Your task to perform on an android device: When is my next appointment? Image 0: 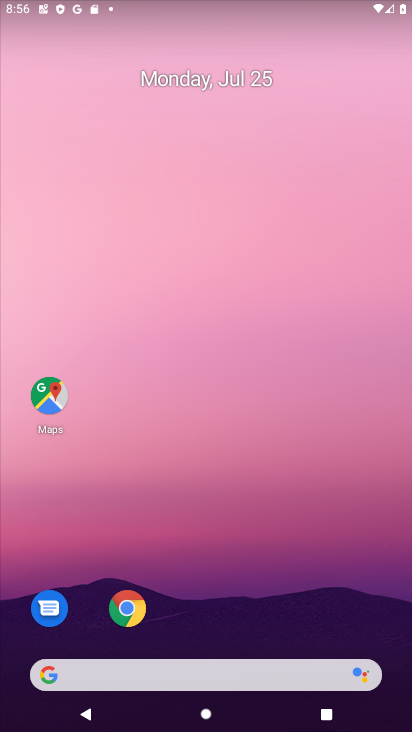
Step 0: drag from (236, 630) to (236, 247)
Your task to perform on an android device: When is my next appointment? Image 1: 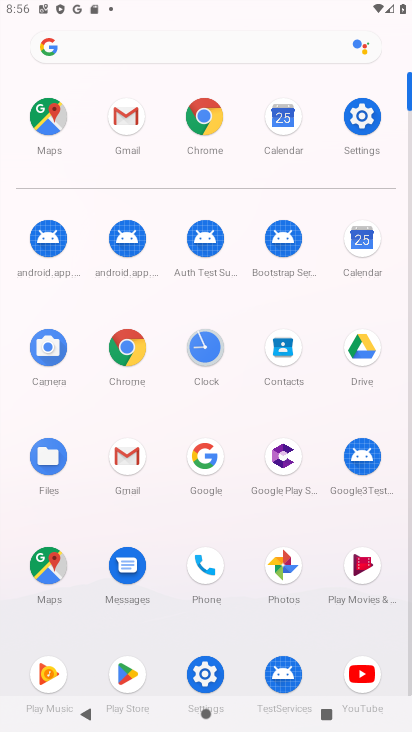
Step 1: click (278, 114)
Your task to perform on an android device: When is my next appointment? Image 2: 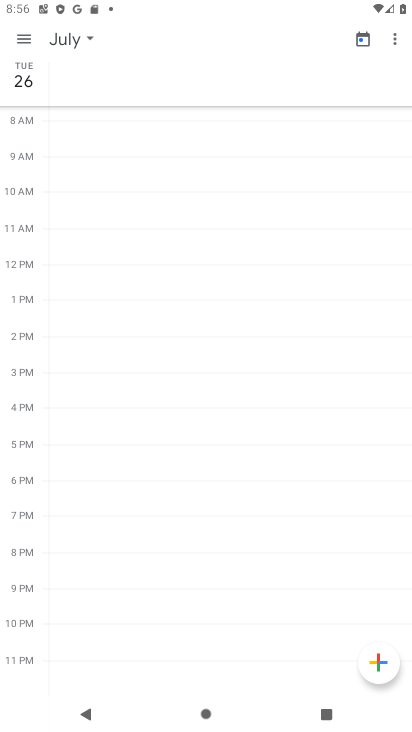
Step 2: drag from (142, 456) to (209, 13)
Your task to perform on an android device: When is my next appointment? Image 3: 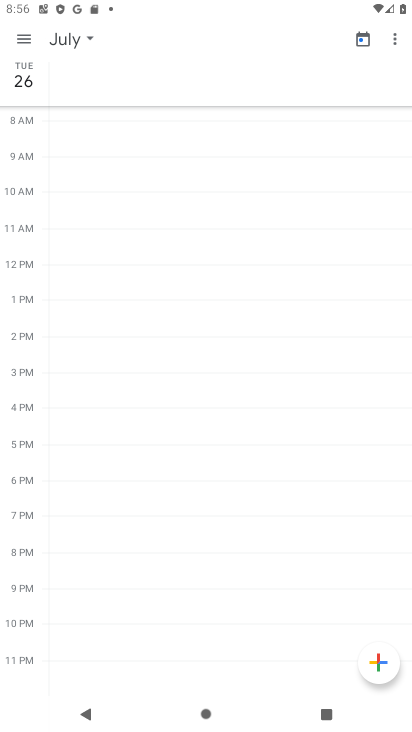
Step 3: drag from (3, 496) to (77, 153)
Your task to perform on an android device: When is my next appointment? Image 4: 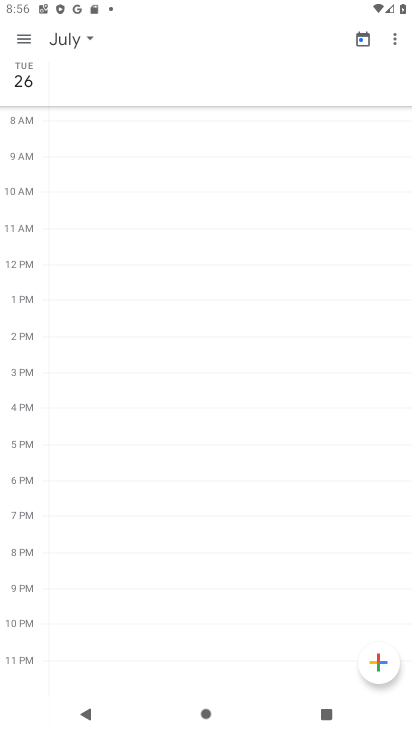
Step 4: click (17, 43)
Your task to perform on an android device: When is my next appointment? Image 5: 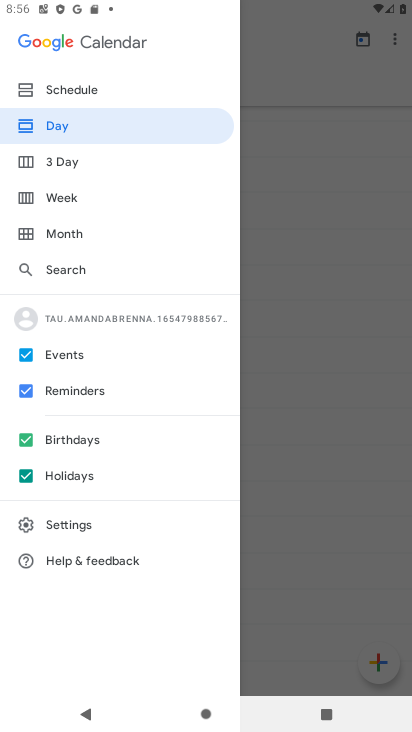
Step 5: click (61, 233)
Your task to perform on an android device: When is my next appointment? Image 6: 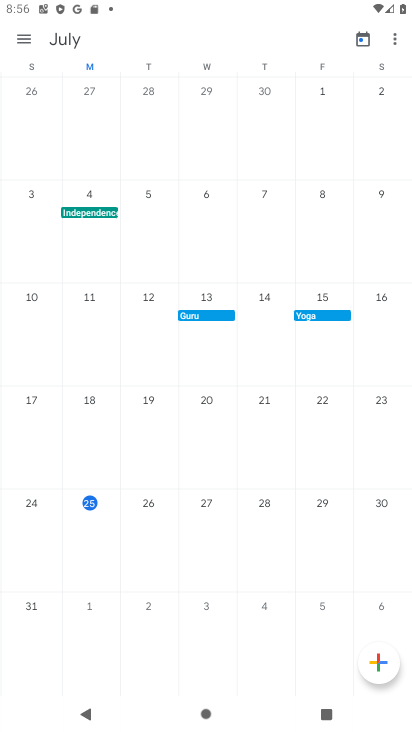
Step 6: click (154, 509)
Your task to perform on an android device: When is my next appointment? Image 7: 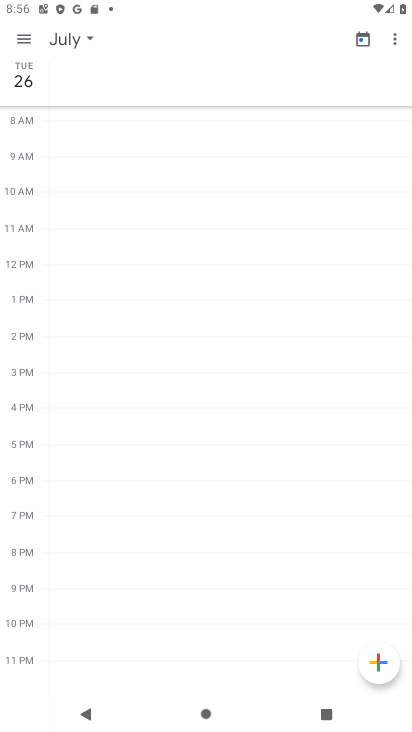
Step 7: click (21, 33)
Your task to perform on an android device: When is my next appointment? Image 8: 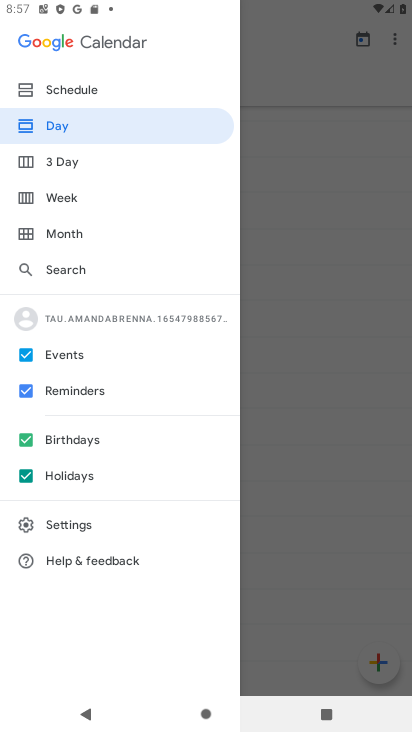
Step 8: click (72, 237)
Your task to perform on an android device: When is my next appointment? Image 9: 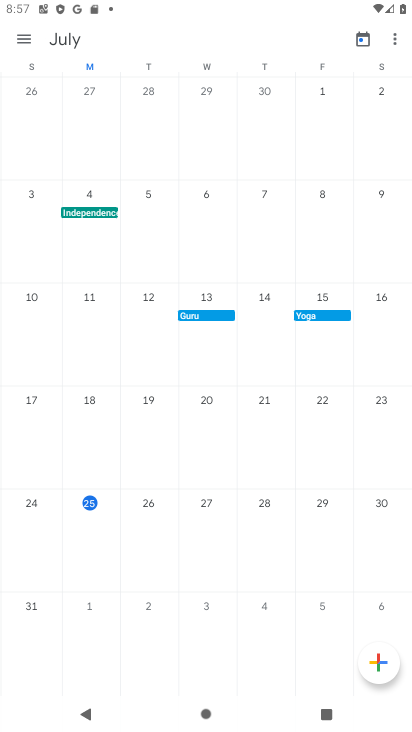
Step 9: click (212, 511)
Your task to perform on an android device: When is my next appointment? Image 10: 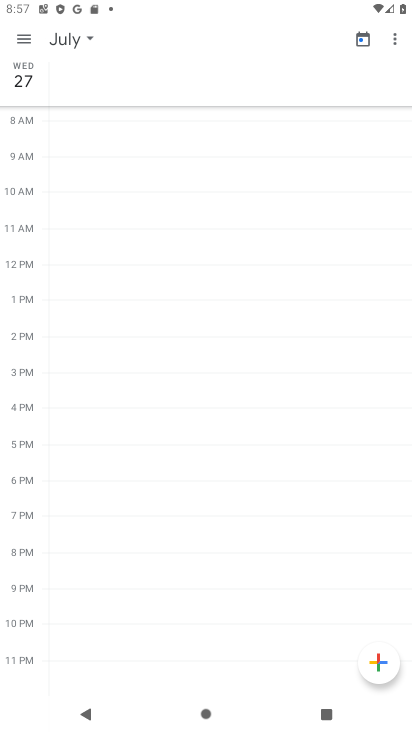
Step 10: task complete